Your task to perform on an android device: open chrome privacy settings Image 0: 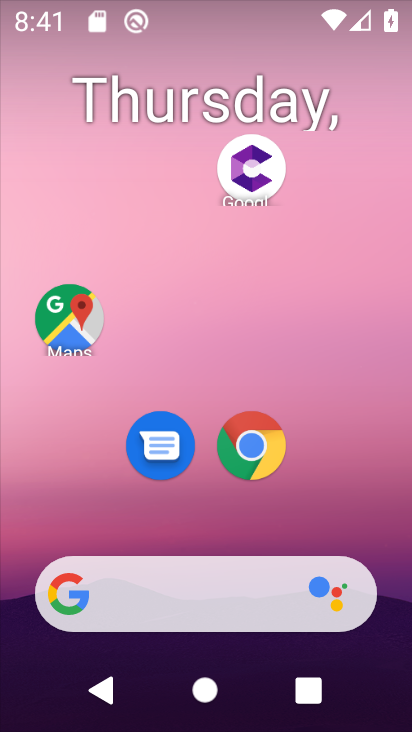
Step 0: click (244, 457)
Your task to perform on an android device: open chrome privacy settings Image 1: 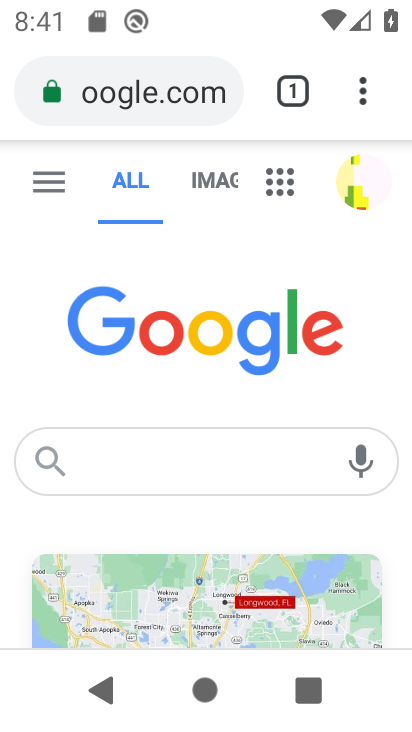
Step 1: click (356, 95)
Your task to perform on an android device: open chrome privacy settings Image 2: 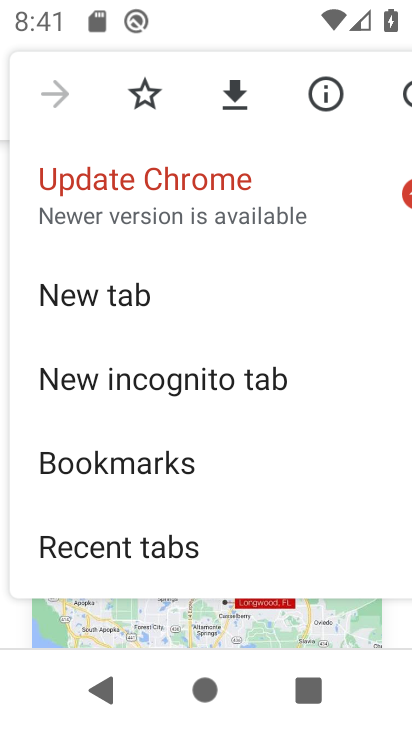
Step 2: drag from (225, 507) to (307, 19)
Your task to perform on an android device: open chrome privacy settings Image 3: 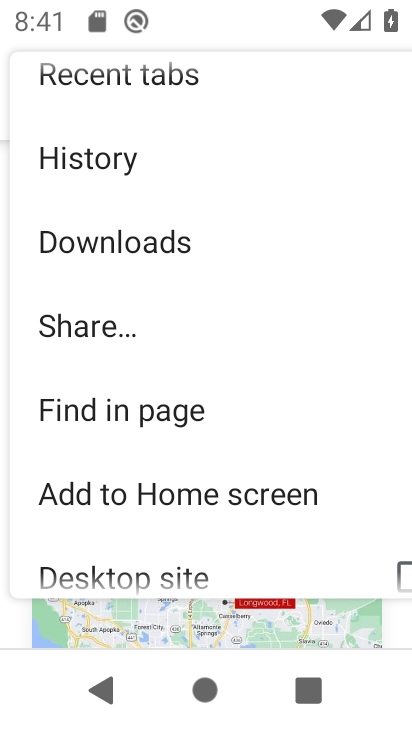
Step 3: drag from (228, 449) to (249, 61)
Your task to perform on an android device: open chrome privacy settings Image 4: 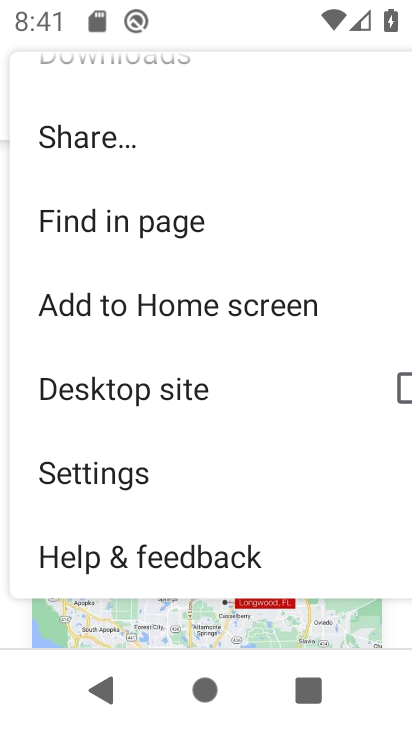
Step 4: click (94, 479)
Your task to perform on an android device: open chrome privacy settings Image 5: 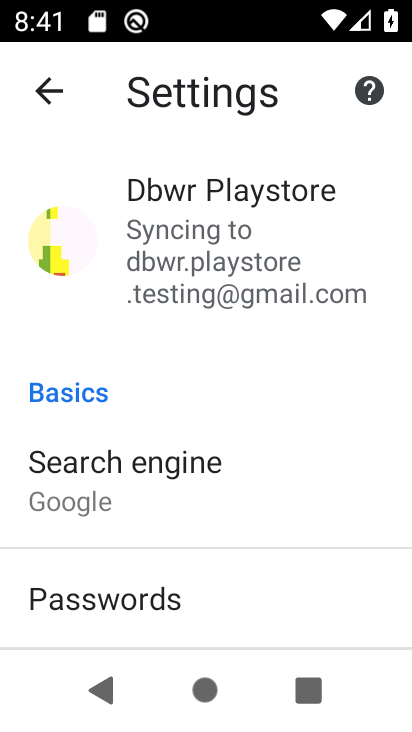
Step 5: drag from (246, 540) to (287, 61)
Your task to perform on an android device: open chrome privacy settings Image 6: 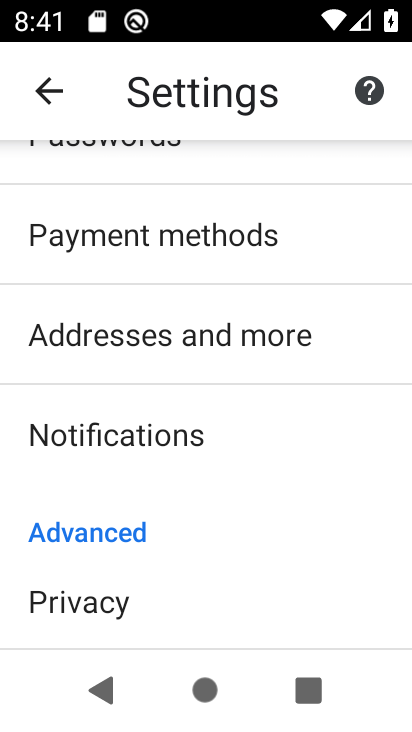
Step 6: click (113, 606)
Your task to perform on an android device: open chrome privacy settings Image 7: 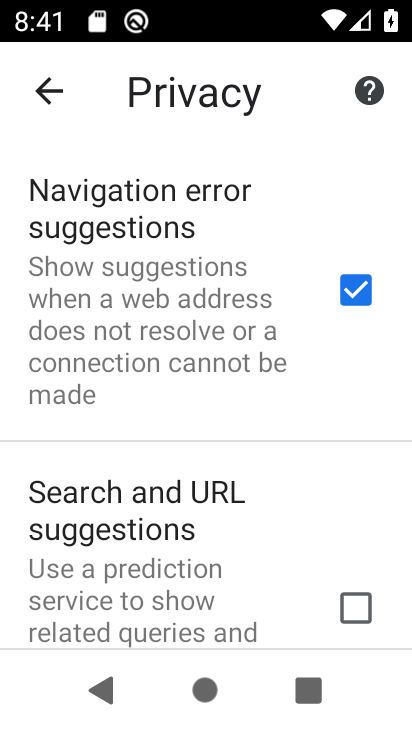
Step 7: task complete